Your task to perform on an android device: Open Youtube and go to the subscriptions tab Image 0: 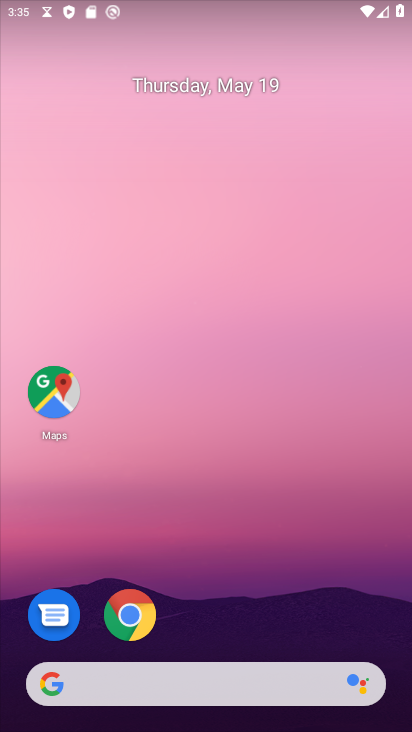
Step 0: drag from (318, 726) to (241, 290)
Your task to perform on an android device: Open Youtube and go to the subscriptions tab Image 1: 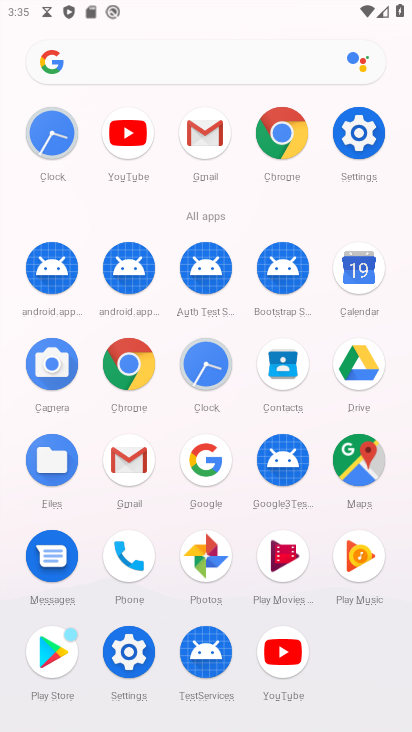
Step 1: click (282, 639)
Your task to perform on an android device: Open Youtube and go to the subscriptions tab Image 2: 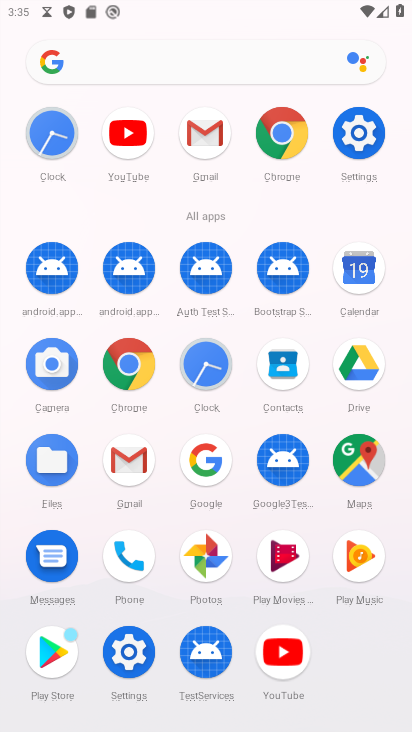
Step 2: click (283, 640)
Your task to perform on an android device: Open Youtube and go to the subscriptions tab Image 3: 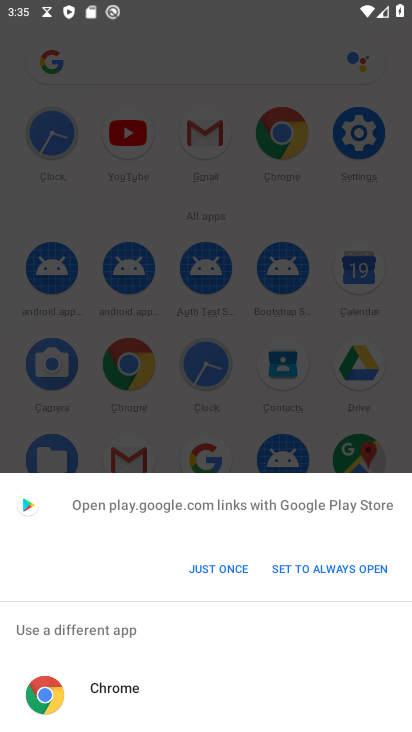
Step 3: press back button
Your task to perform on an android device: Open Youtube and go to the subscriptions tab Image 4: 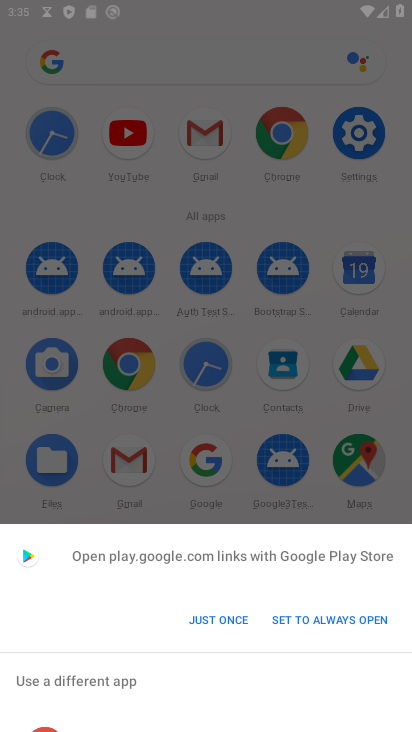
Step 4: press back button
Your task to perform on an android device: Open Youtube and go to the subscriptions tab Image 5: 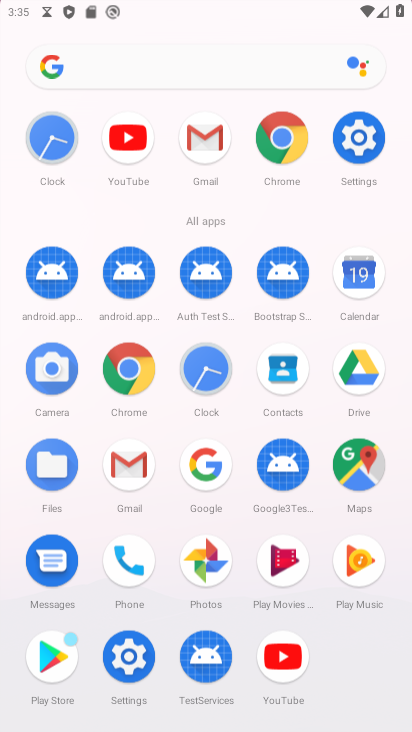
Step 5: press back button
Your task to perform on an android device: Open Youtube and go to the subscriptions tab Image 6: 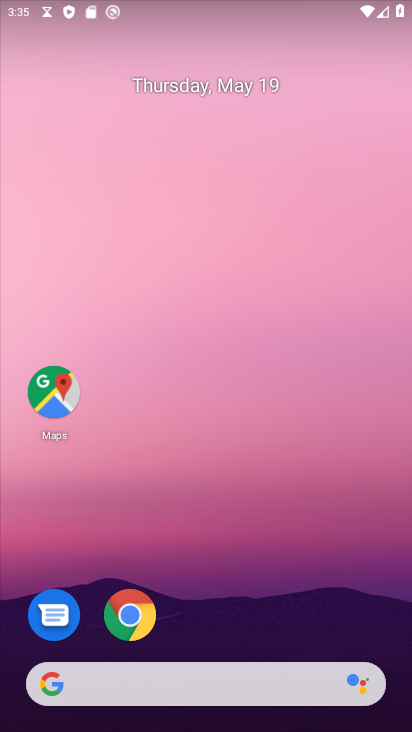
Step 6: drag from (242, 641) to (108, 2)
Your task to perform on an android device: Open Youtube and go to the subscriptions tab Image 7: 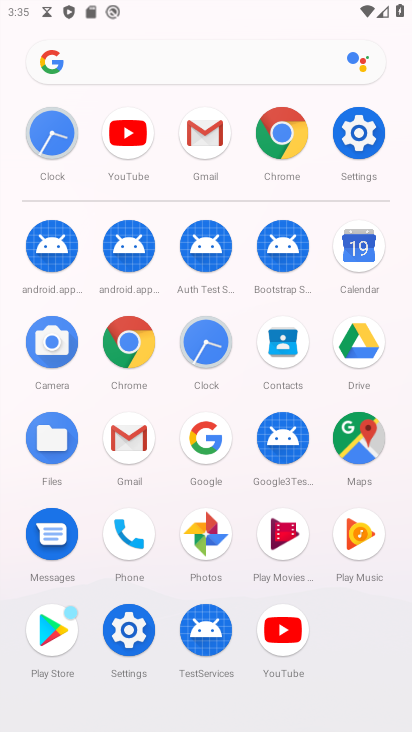
Step 7: drag from (238, 626) to (149, 13)
Your task to perform on an android device: Open Youtube and go to the subscriptions tab Image 8: 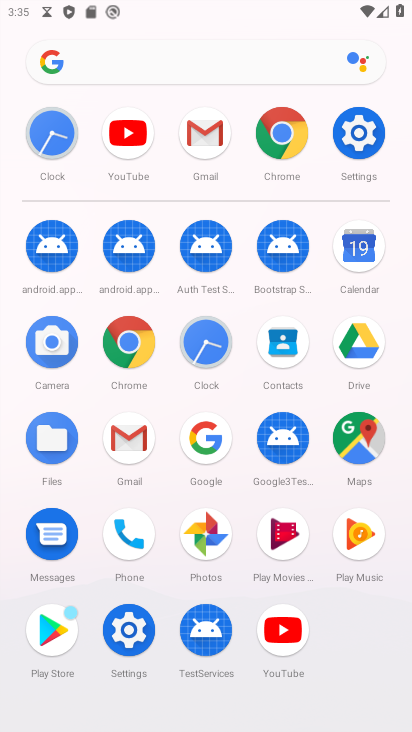
Step 8: click (283, 619)
Your task to perform on an android device: Open Youtube and go to the subscriptions tab Image 9: 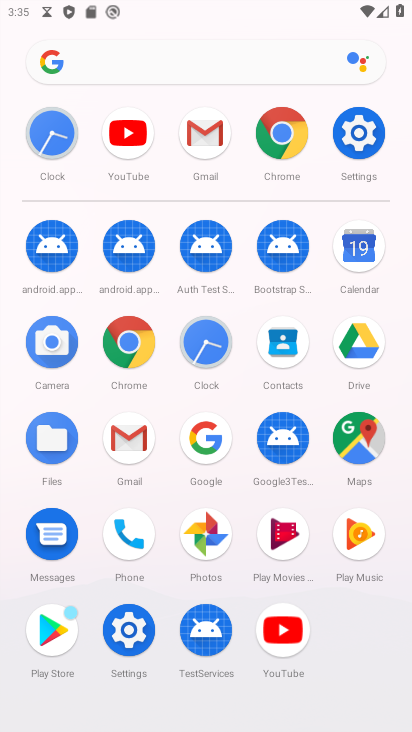
Step 9: click (283, 620)
Your task to perform on an android device: Open Youtube and go to the subscriptions tab Image 10: 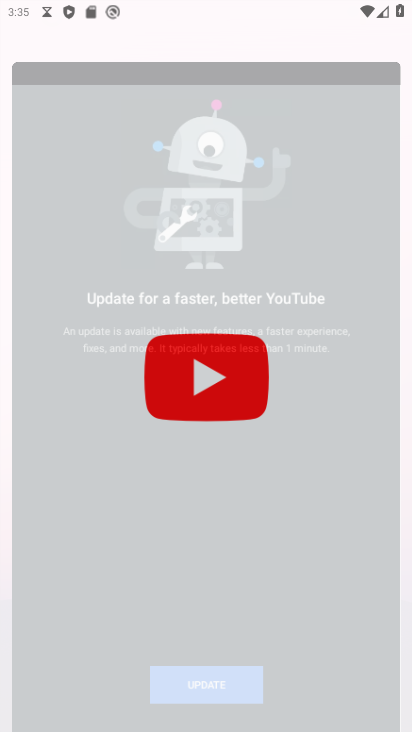
Step 10: click (285, 619)
Your task to perform on an android device: Open Youtube and go to the subscriptions tab Image 11: 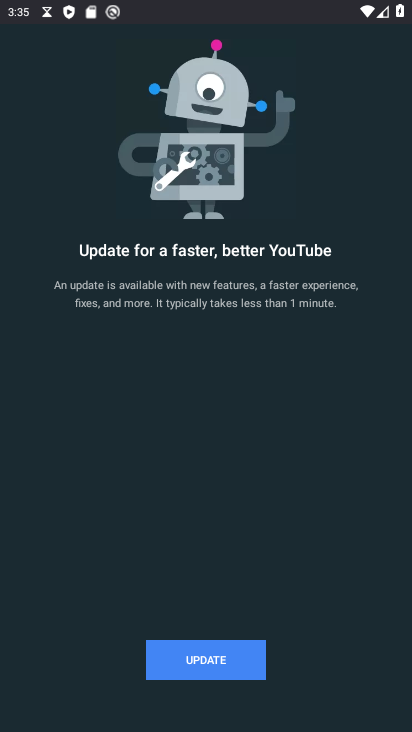
Step 11: click (198, 670)
Your task to perform on an android device: Open Youtube and go to the subscriptions tab Image 12: 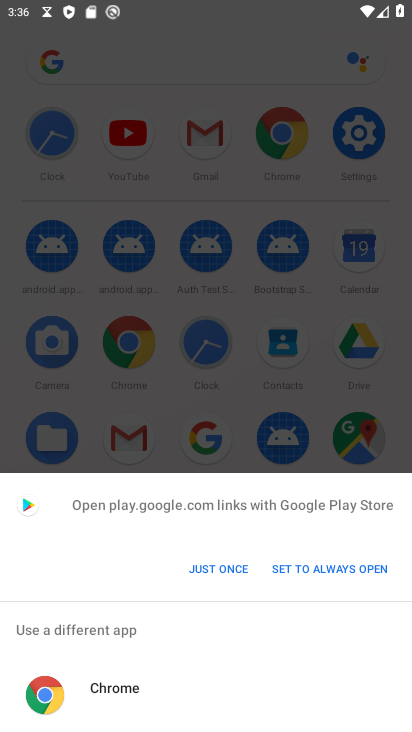
Step 12: click (140, 694)
Your task to perform on an android device: Open Youtube and go to the subscriptions tab Image 13: 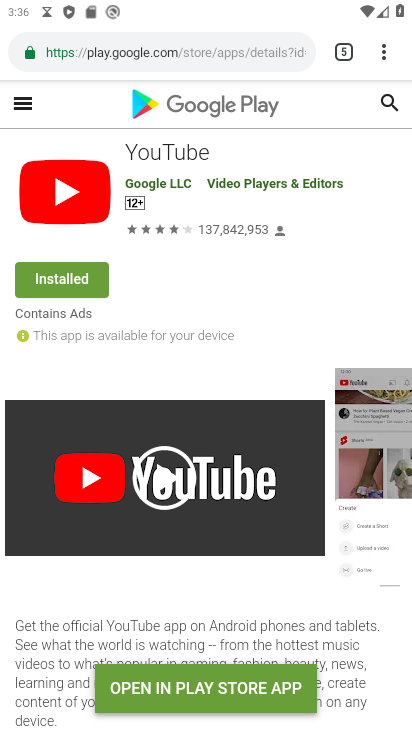
Step 13: click (161, 476)
Your task to perform on an android device: Open Youtube and go to the subscriptions tab Image 14: 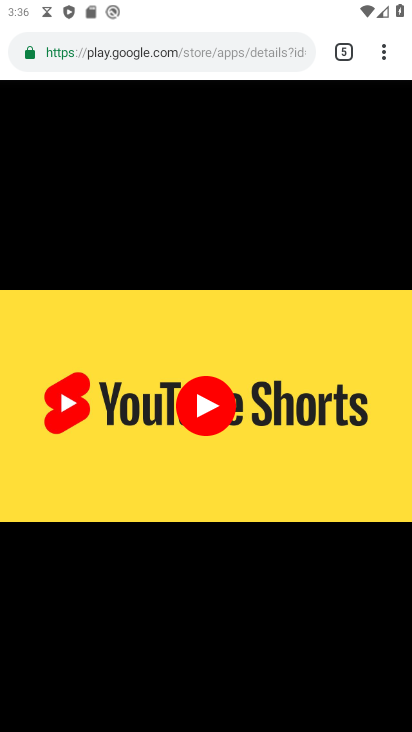
Step 14: task complete